Your task to perform on an android device: turn on location history Image 0: 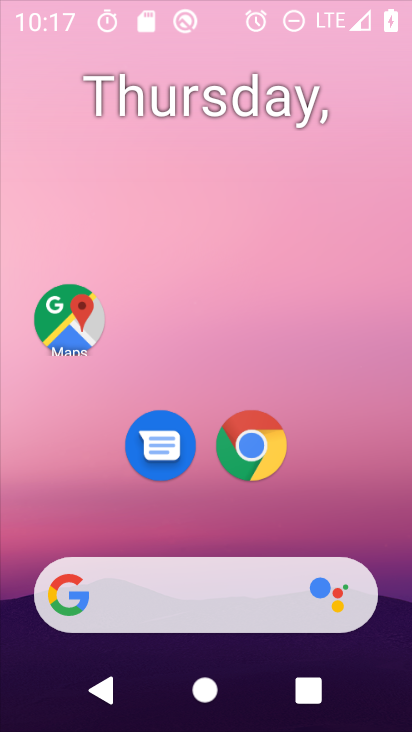
Step 0: click (279, 142)
Your task to perform on an android device: turn on location history Image 1: 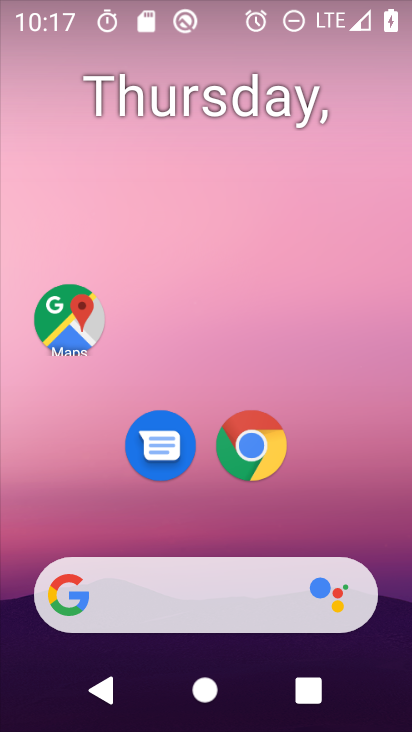
Step 1: drag from (188, 504) to (246, 137)
Your task to perform on an android device: turn on location history Image 2: 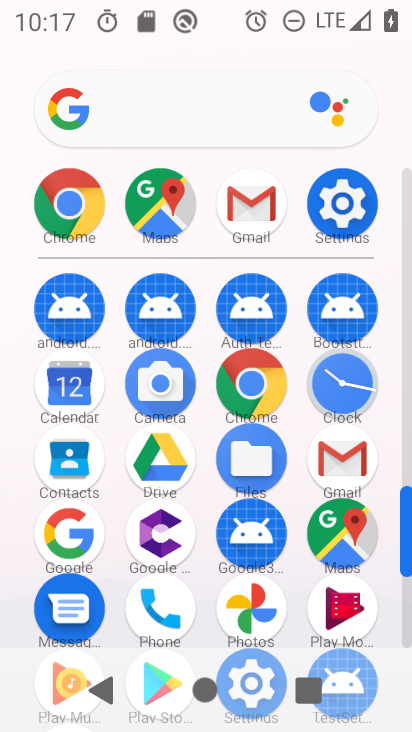
Step 2: click (218, 256)
Your task to perform on an android device: turn on location history Image 3: 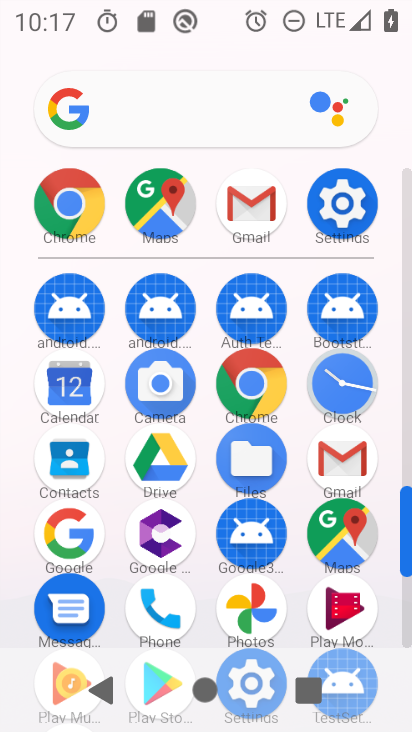
Step 3: click (349, 204)
Your task to perform on an android device: turn on location history Image 4: 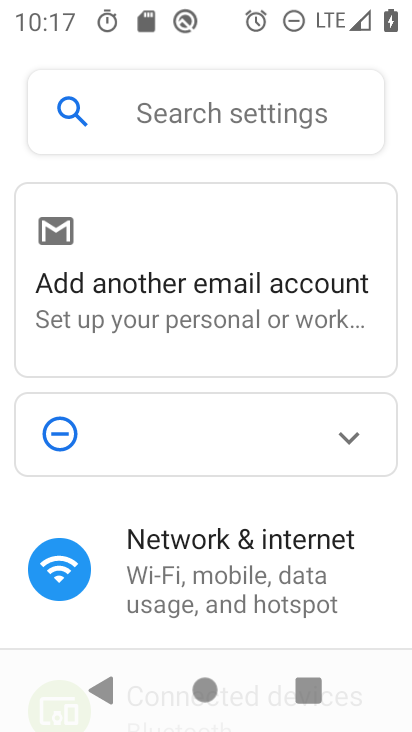
Step 4: drag from (214, 601) to (323, 167)
Your task to perform on an android device: turn on location history Image 5: 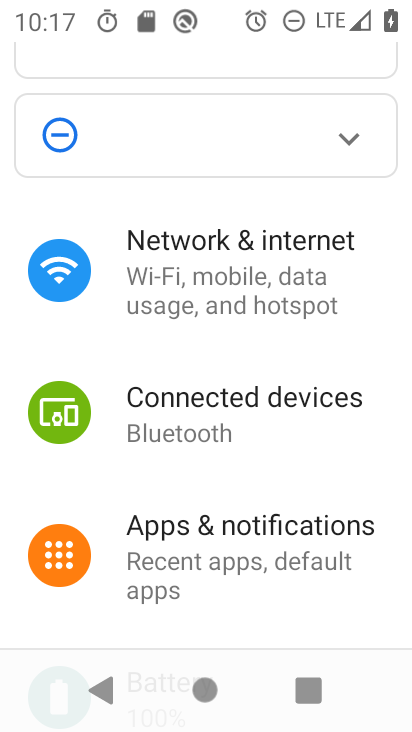
Step 5: drag from (234, 570) to (297, 159)
Your task to perform on an android device: turn on location history Image 6: 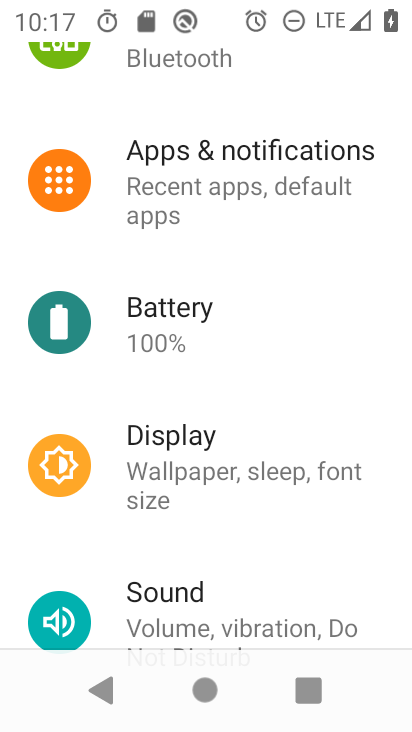
Step 6: drag from (220, 597) to (295, 156)
Your task to perform on an android device: turn on location history Image 7: 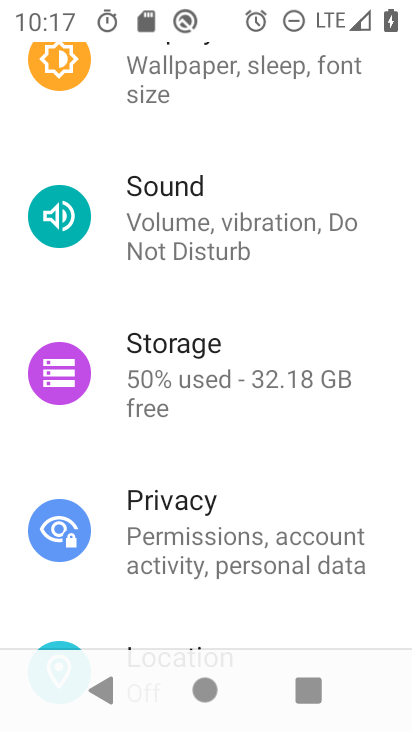
Step 7: drag from (219, 548) to (281, 221)
Your task to perform on an android device: turn on location history Image 8: 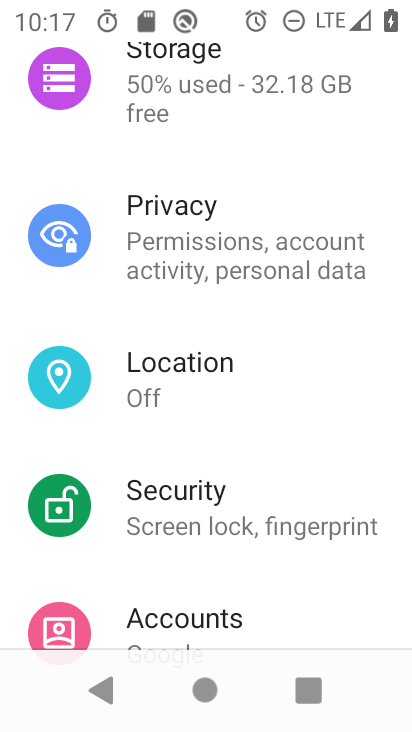
Step 8: click (199, 430)
Your task to perform on an android device: turn on location history Image 9: 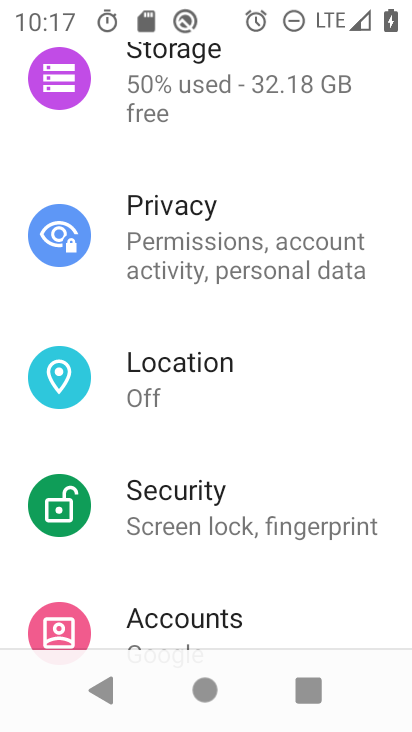
Step 9: click (198, 429)
Your task to perform on an android device: turn on location history Image 10: 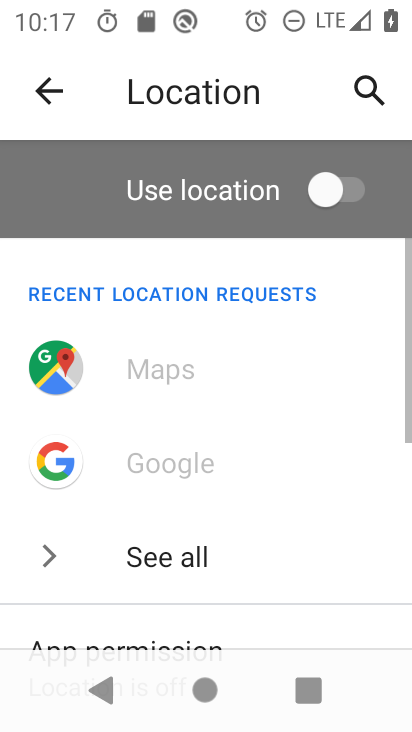
Step 10: drag from (213, 572) to (273, 298)
Your task to perform on an android device: turn on location history Image 11: 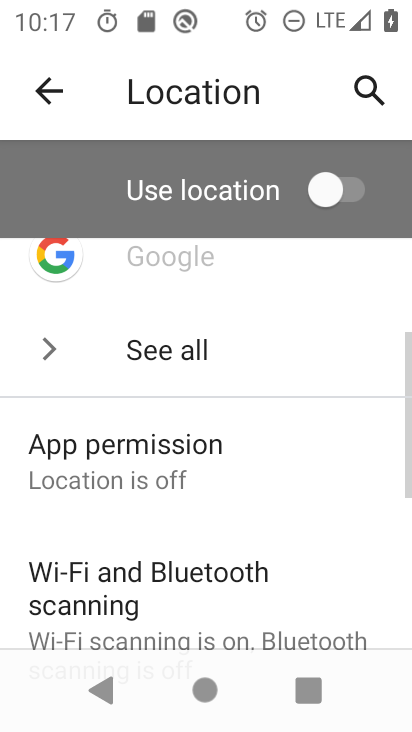
Step 11: drag from (275, 291) to (291, 558)
Your task to perform on an android device: turn on location history Image 12: 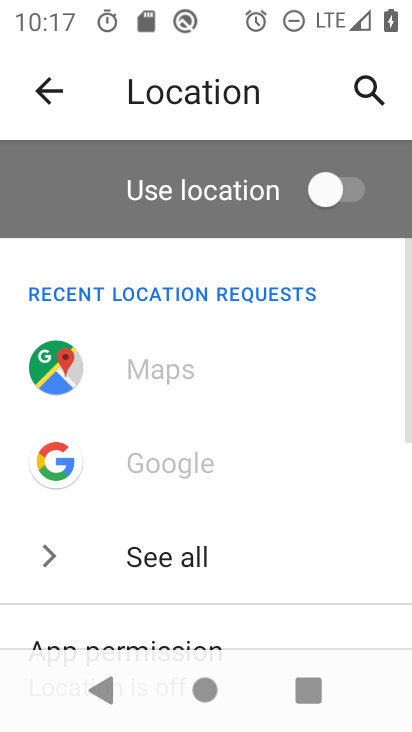
Step 12: drag from (302, 478) to (362, 240)
Your task to perform on an android device: turn on location history Image 13: 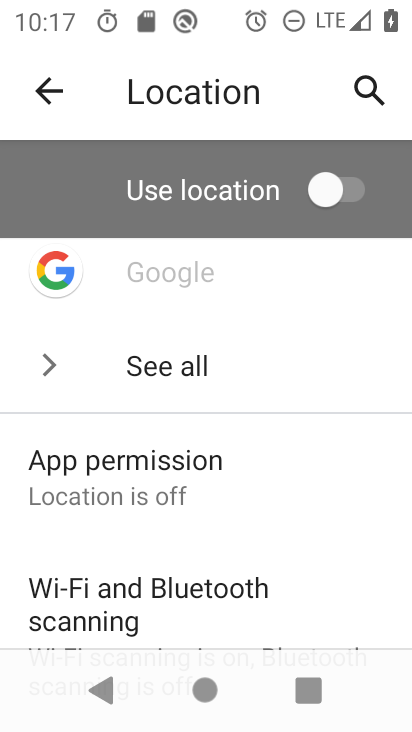
Step 13: drag from (195, 594) to (342, 193)
Your task to perform on an android device: turn on location history Image 14: 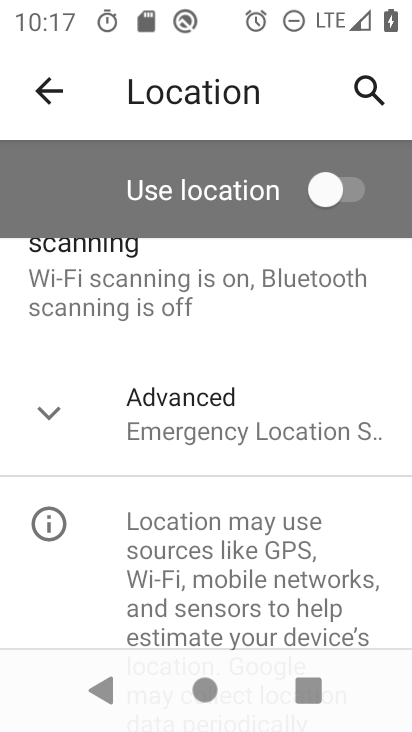
Step 14: click (207, 448)
Your task to perform on an android device: turn on location history Image 15: 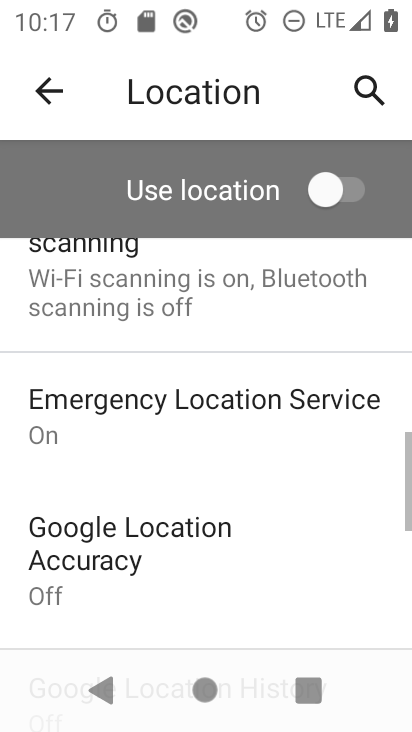
Step 15: drag from (178, 550) to (303, 257)
Your task to perform on an android device: turn on location history Image 16: 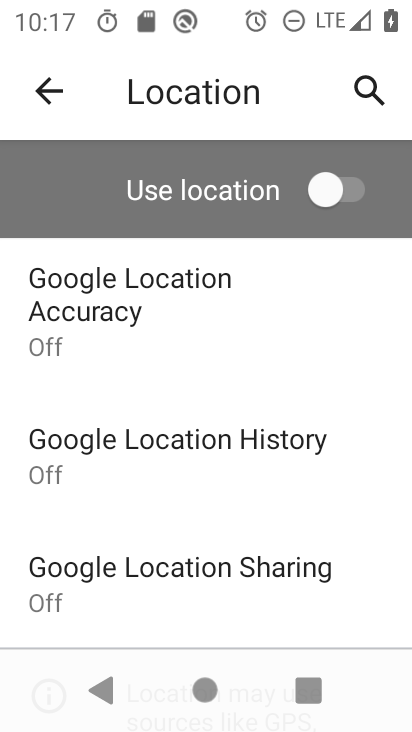
Step 16: click (174, 493)
Your task to perform on an android device: turn on location history Image 17: 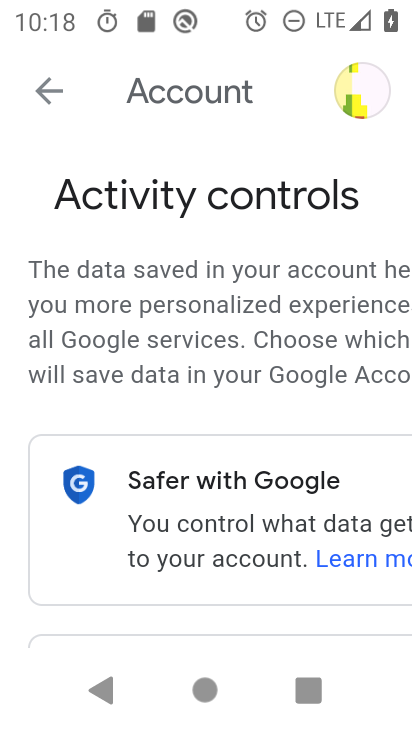
Step 17: task complete